Your task to perform on an android device: set default search engine in the chrome app Image 0: 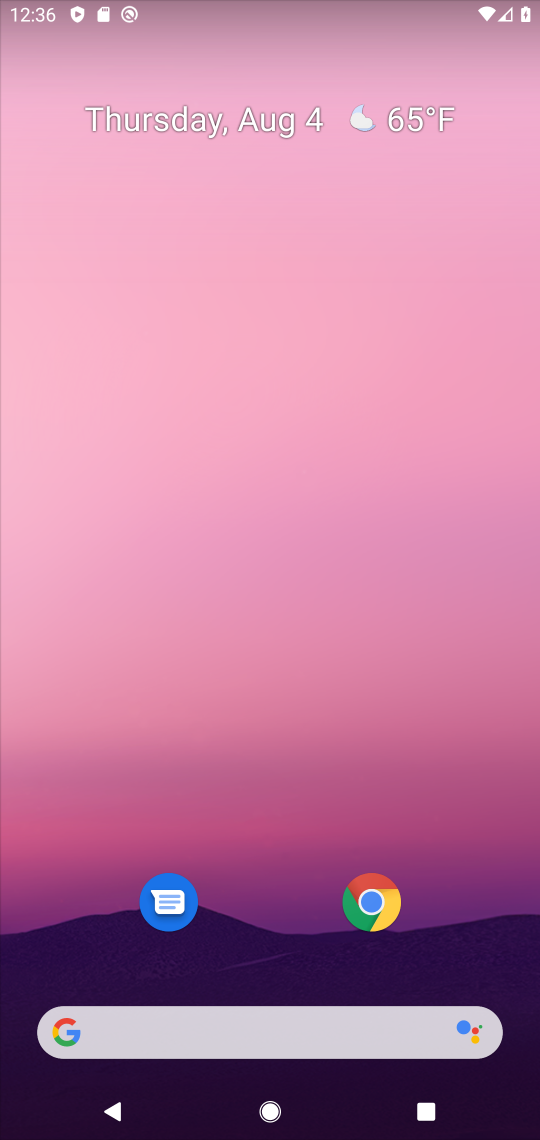
Step 0: click (372, 902)
Your task to perform on an android device: set default search engine in the chrome app Image 1: 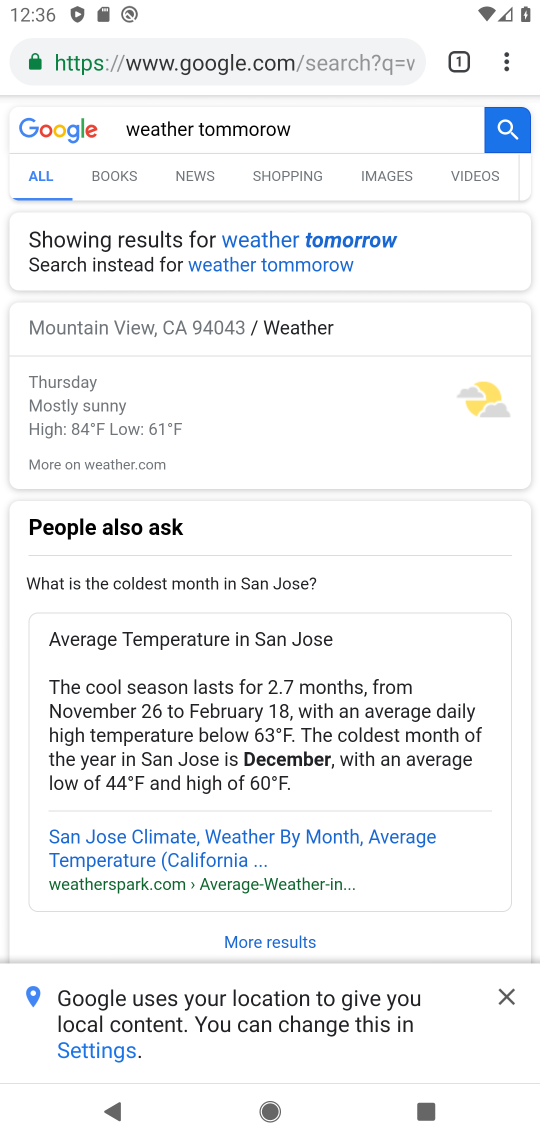
Step 1: click (502, 70)
Your task to perform on an android device: set default search engine in the chrome app Image 2: 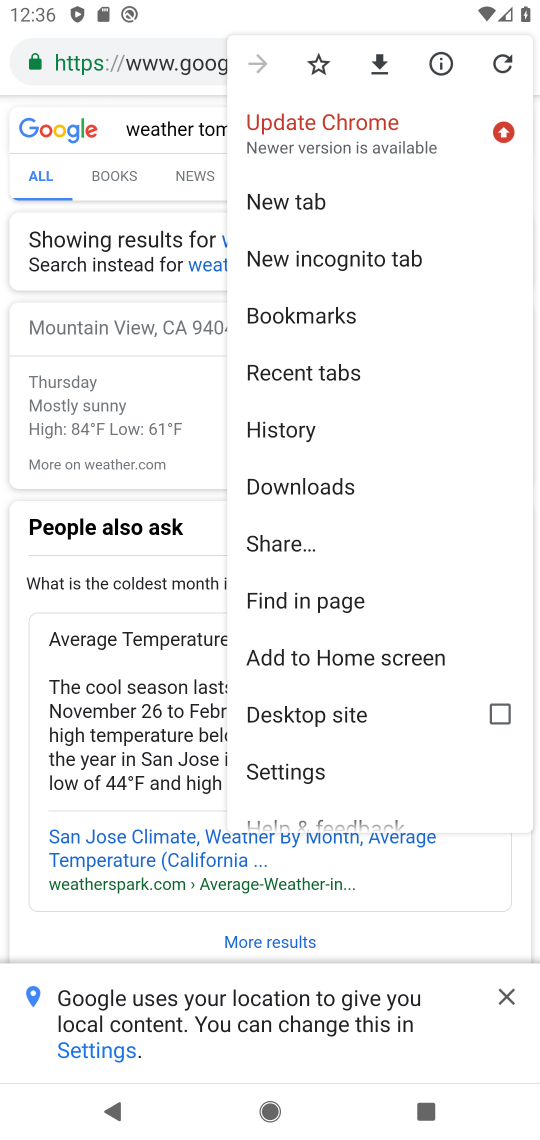
Step 2: click (280, 776)
Your task to perform on an android device: set default search engine in the chrome app Image 3: 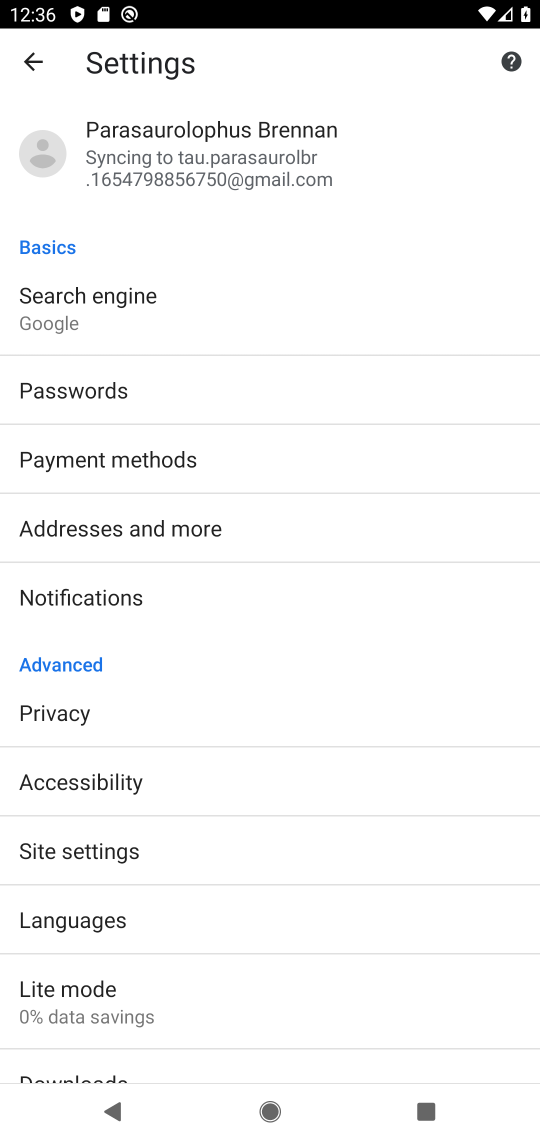
Step 3: click (86, 307)
Your task to perform on an android device: set default search engine in the chrome app Image 4: 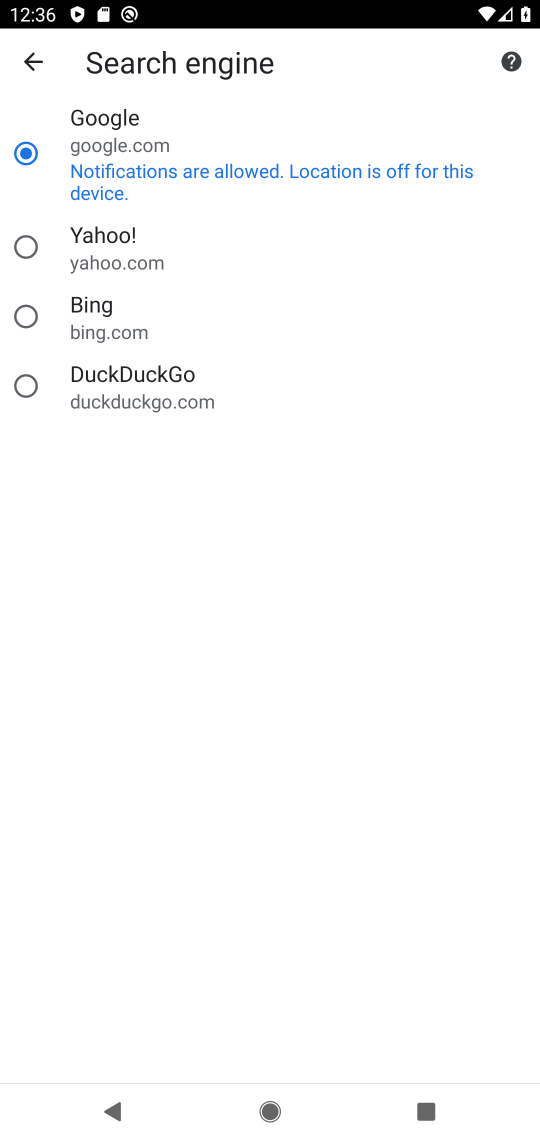
Step 4: click (27, 244)
Your task to perform on an android device: set default search engine in the chrome app Image 5: 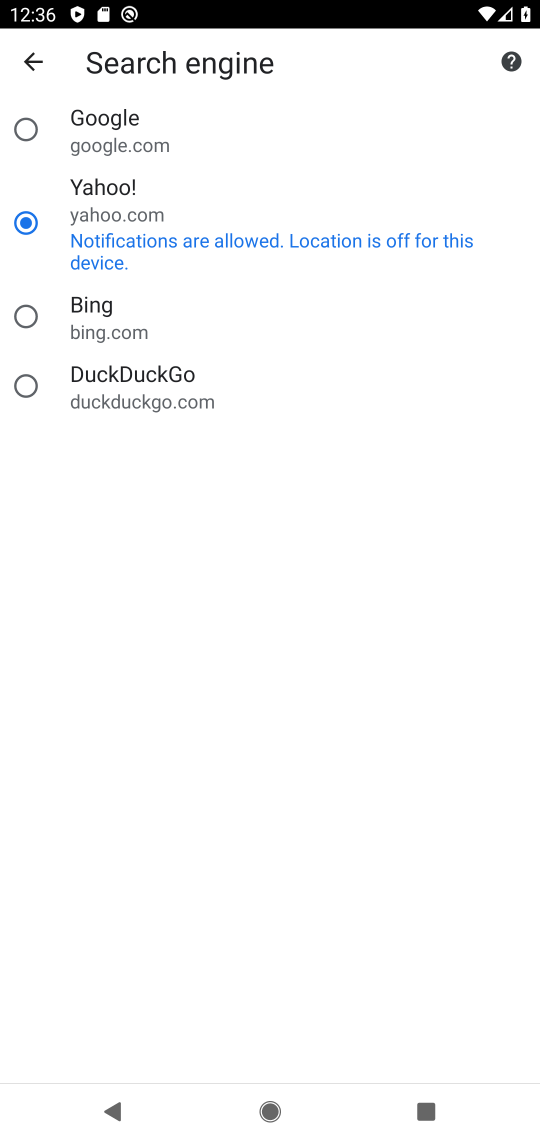
Step 5: task complete